Your task to perform on an android device: change the clock display to show seconds Image 0: 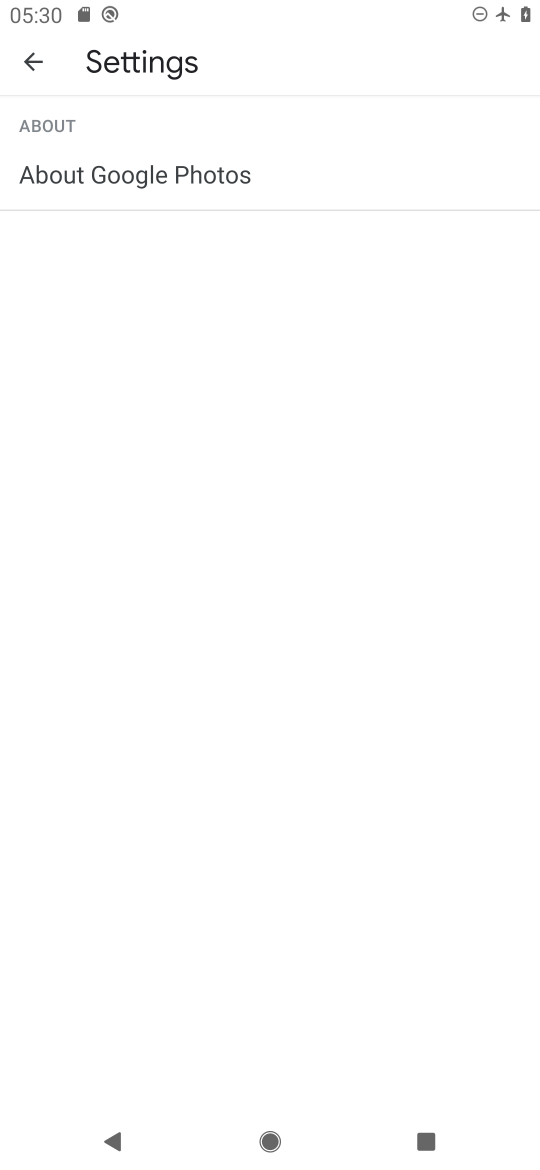
Step 0: press home button
Your task to perform on an android device: change the clock display to show seconds Image 1: 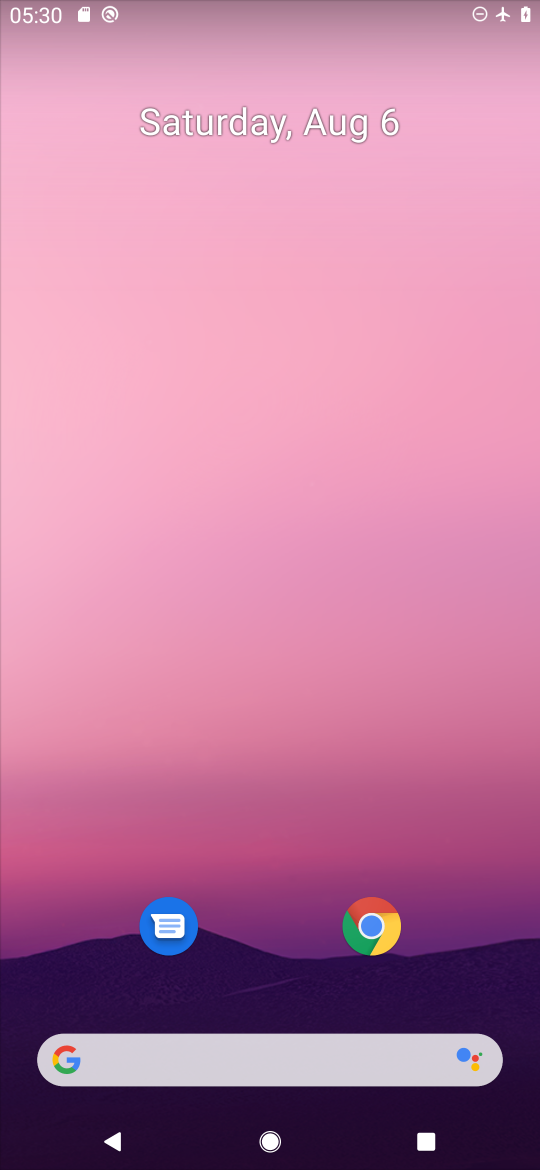
Step 1: drag from (284, 970) to (289, 210)
Your task to perform on an android device: change the clock display to show seconds Image 2: 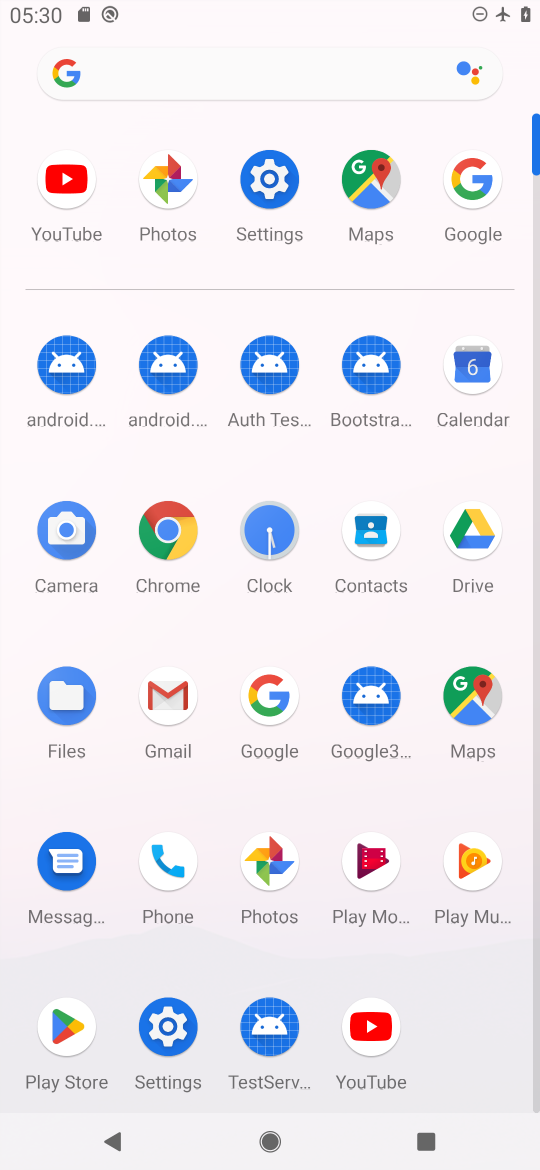
Step 2: click (273, 553)
Your task to perform on an android device: change the clock display to show seconds Image 3: 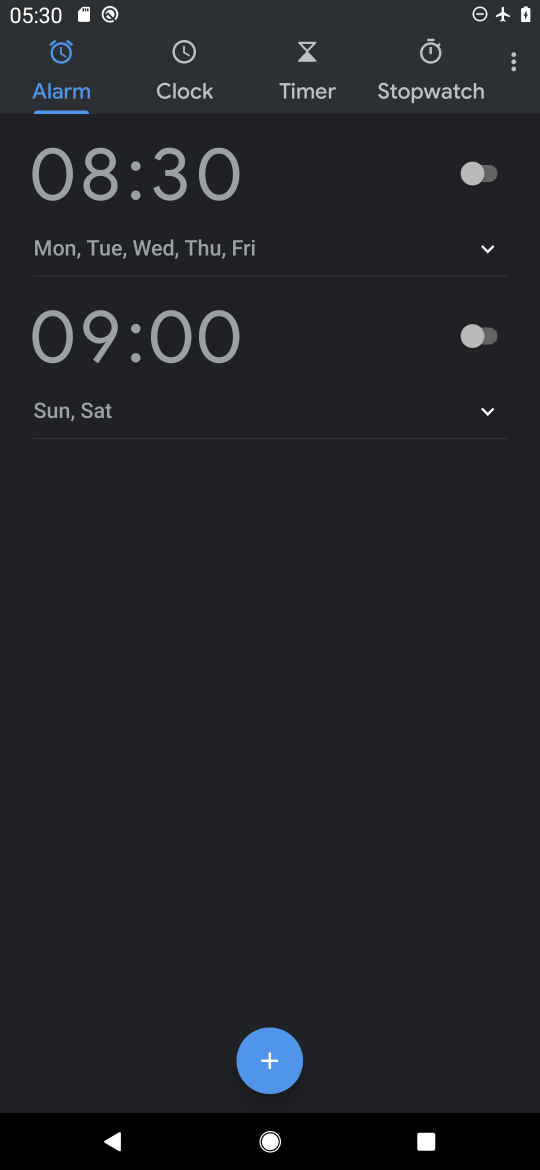
Step 3: click (507, 74)
Your task to perform on an android device: change the clock display to show seconds Image 4: 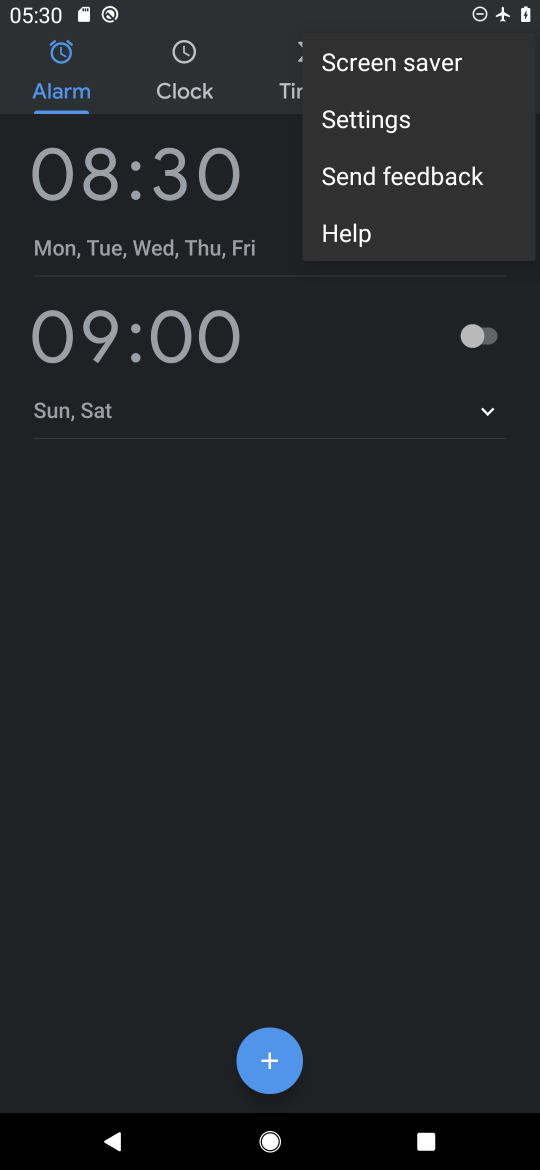
Step 4: click (406, 116)
Your task to perform on an android device: change the clock display to show seconds Image 5: 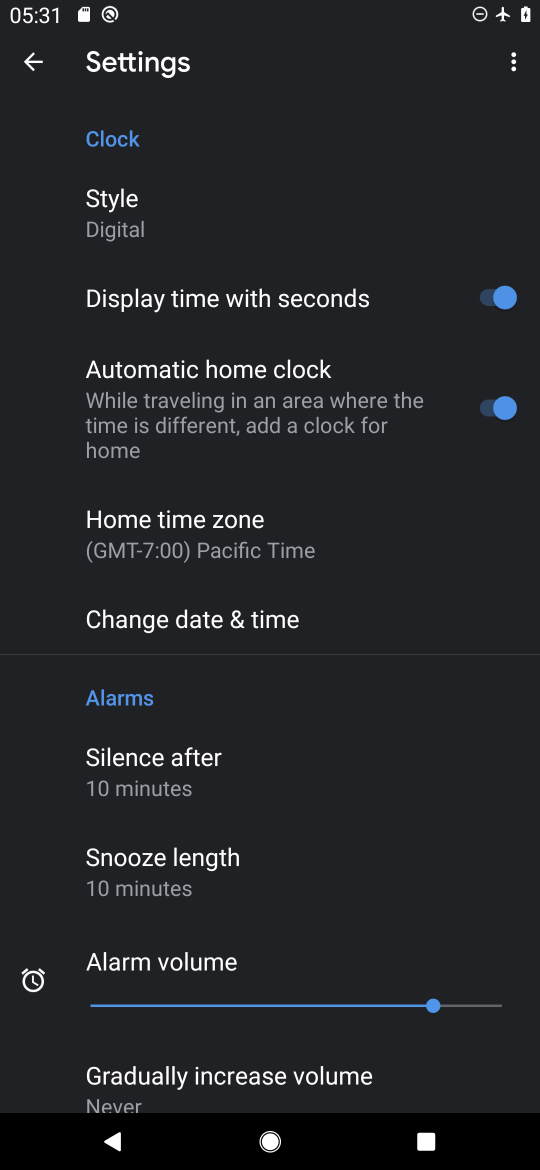
Step 5: task complete